Your task to perform on an android device: Open the calendar and show me this week's events? Image 0: 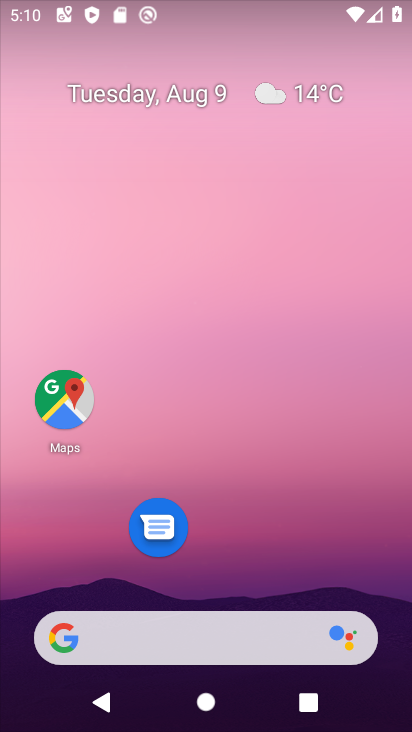
Step 0: click (159, 107)
Your task to perform on an android device: Open the calendar and show me this week's events? Image 1: 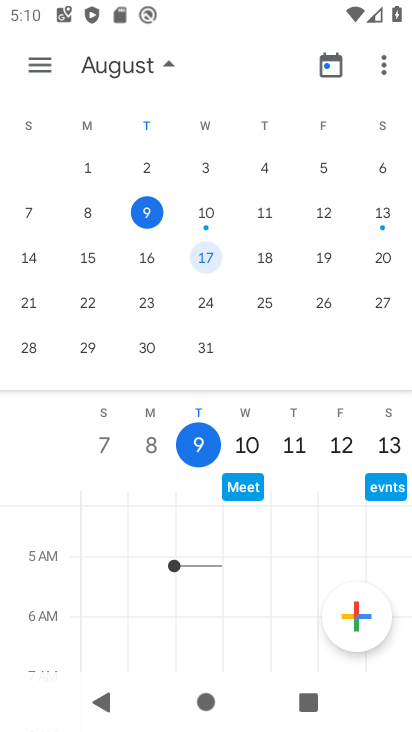
Step 1: task complete